Your task to perform on an android device: Go to CNN.com Image 0: 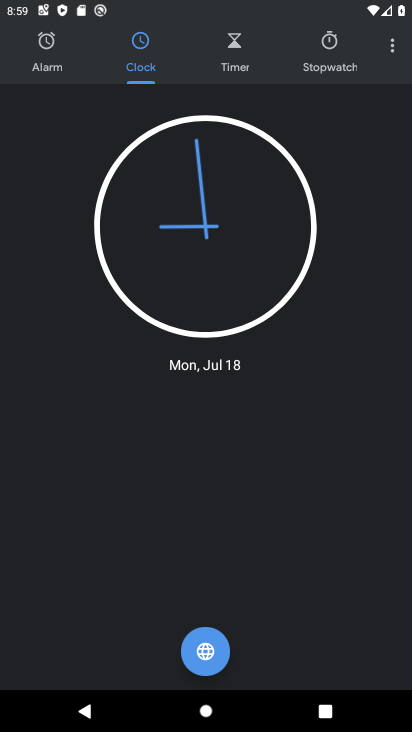
Step 0: press home button
Your task to perform on an android device: Go to CNN.com Image 1: 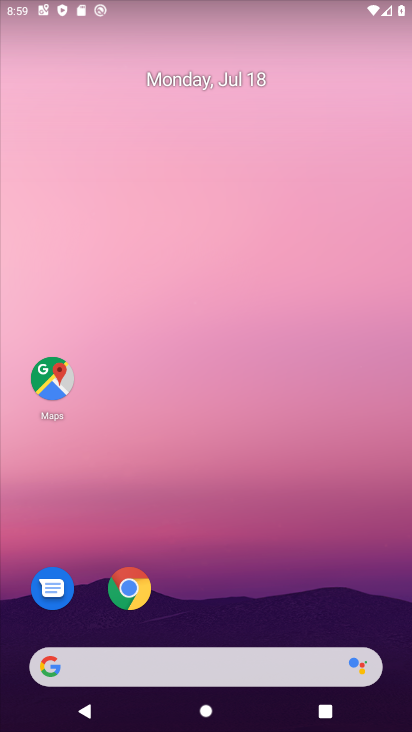
Step 1: click (136, 584)
Your task to perform on an android device: Go to CNN.com Image 2: 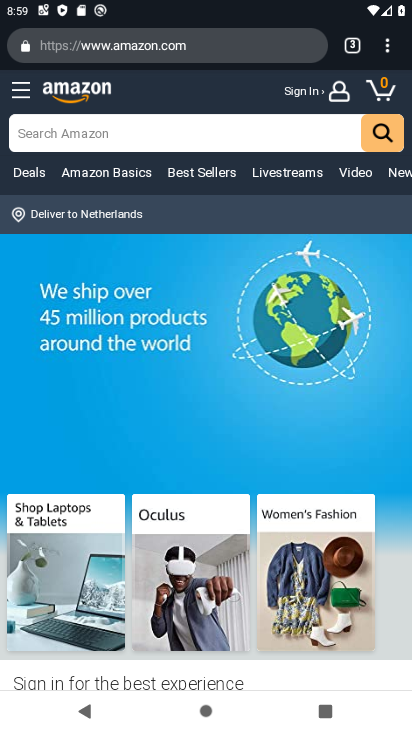
Step 2: click (260, 40)
Your task to perform on an android device: Go to CNN.com Image 3: 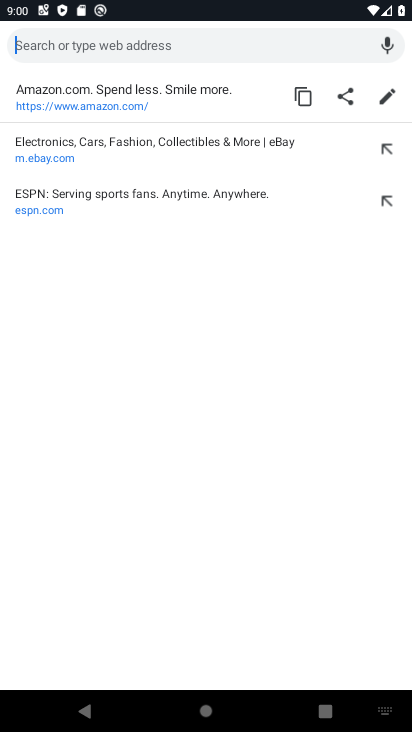
Step 3: type "CNN.com"
Your task to perform on an android device: Go to CNN.com Image 4: 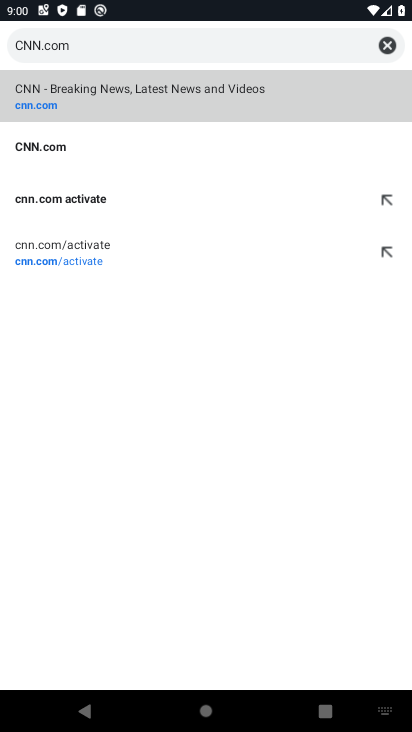
Step 4: click (73, 92)
Your task to perform on an android device: Go to CNN.com Image 5: 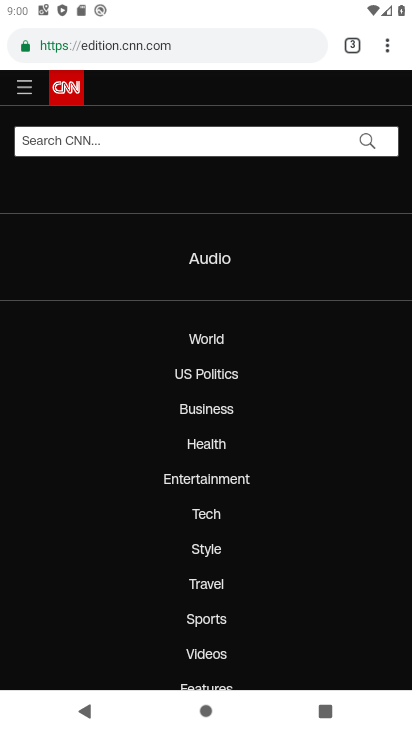
Step 5: task complete